Your task to perform on an android device: turn notification dots on Image 0: 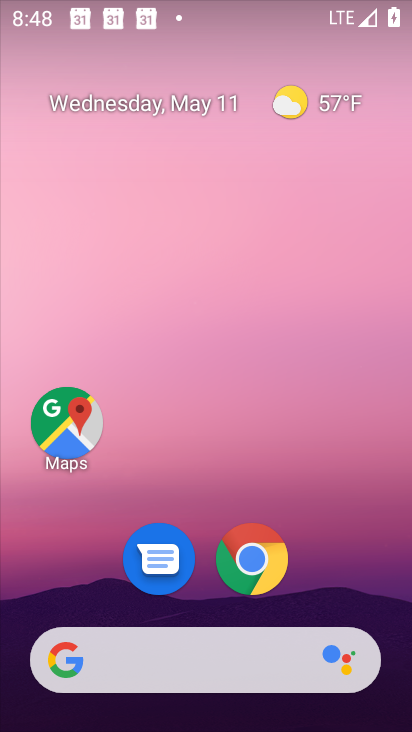
Step 0: drag from (368, 598) to (299, 3)
Your task to perform on an android device: turn notification dots on Image 1: 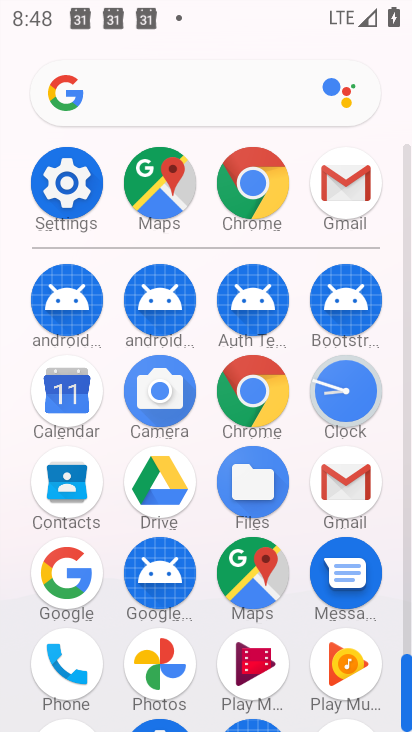
Step 1: click (69, 174)
Your task to perform on an android device: turn notification dots on Image 2: 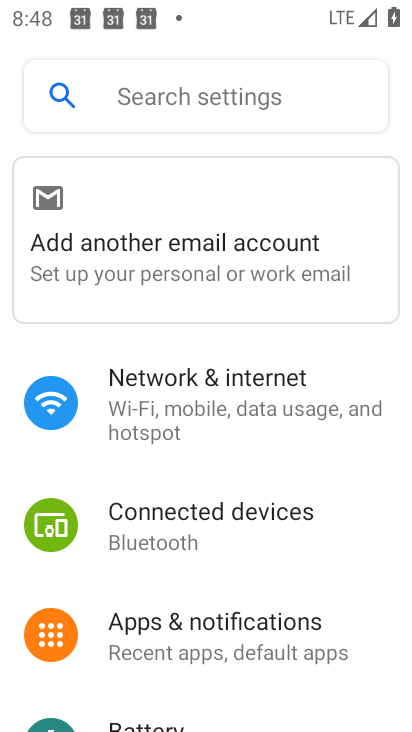
Step 2: click (258, 616)
Your task to perform on an android device: turn notification dots on Image 3: 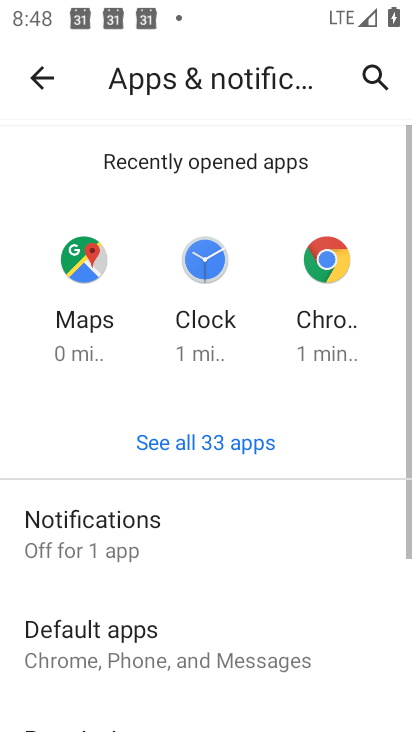
Step 3: click (196, 557)
Your task to perform on an android device: turn notification dots on Image 4: 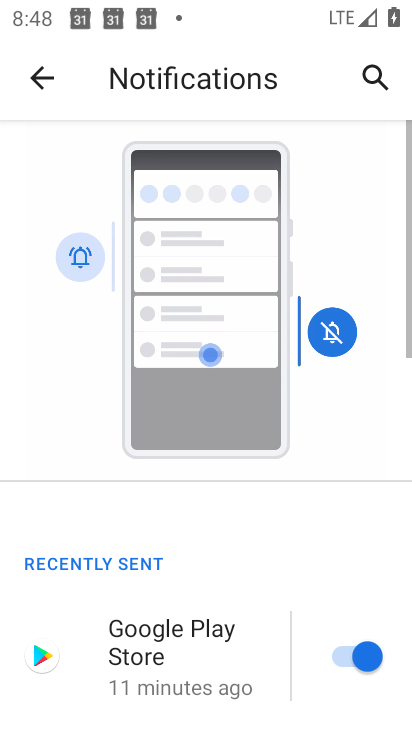
Step 4: drag from (199, 588) to (163, 65)
Your task to perform on an android device: turn notification dots on Image 5: 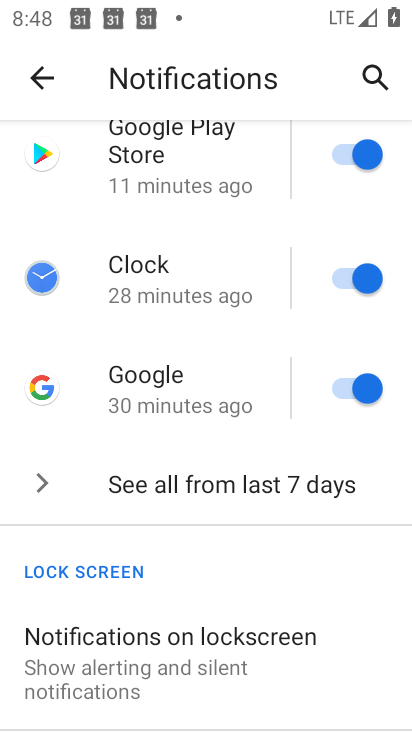
Step 5: drag from (275, 635) to (234, 49)
Your task to perform on an android device: turn notification dots on Image 6: 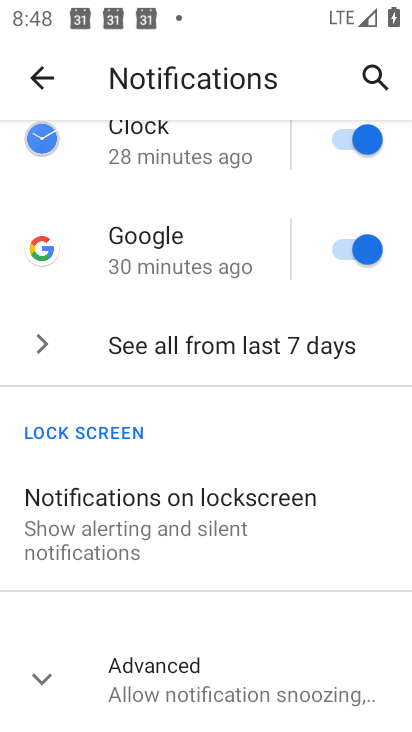
Step 6: click (226, 680)
Your task to perform on an android device: turn notification dots on Image 7: 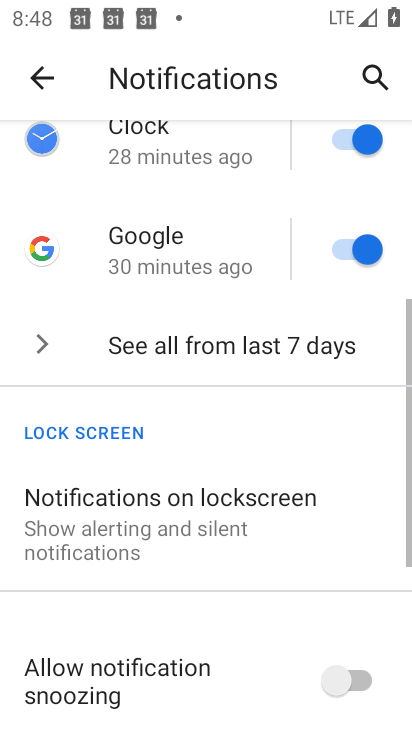
Step 7: drag from (226, 680) to (224, 378)
Your task to perform on an android device: turn notification dots on Image 8: 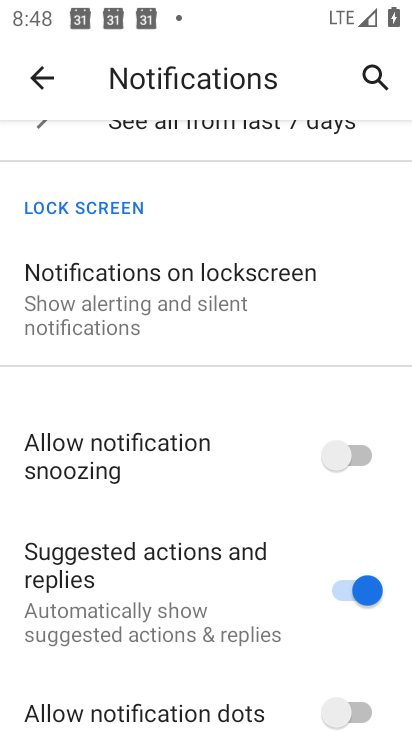
Step 8: drag from (253, 639) to (294, 224)
Your task to perform on an android device: turn notification dots on Image 9: 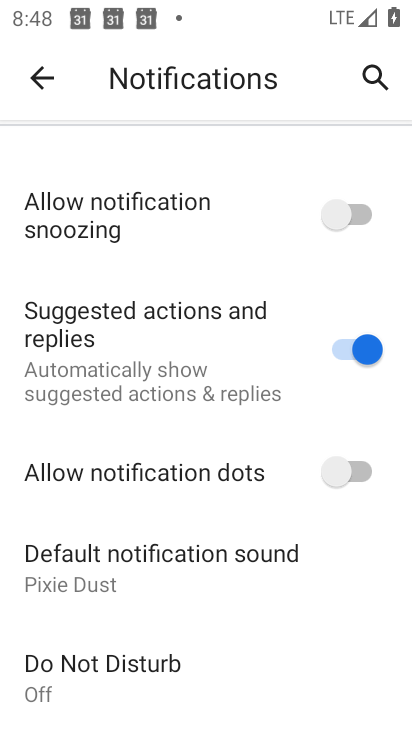
Step 9: click (290, 470)
Your task to perform on an android device: turn notification dots on Image 10: 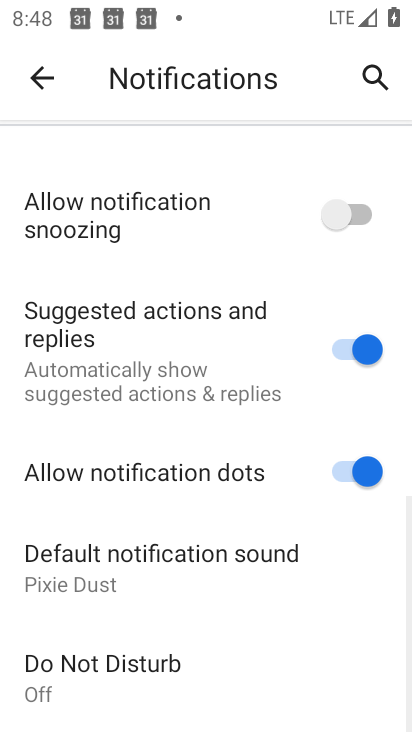
Step 10: task complete